Your task to perform on an android device: What's the weather? Image 0: 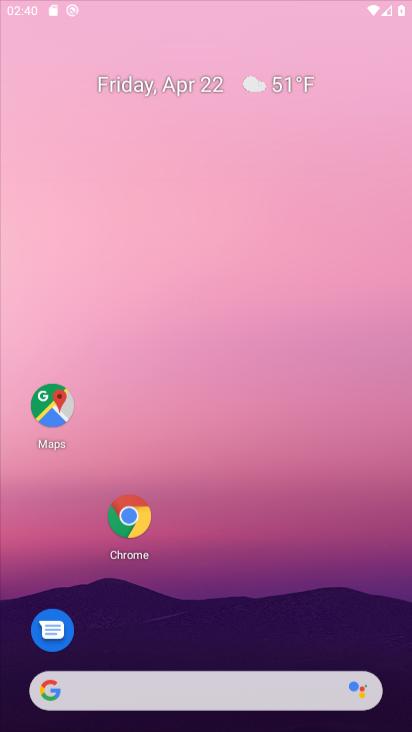
Step 0: drag from (342, 284) to (336, 184)
Your task to perform on an android device: What's the weather? Image 1: 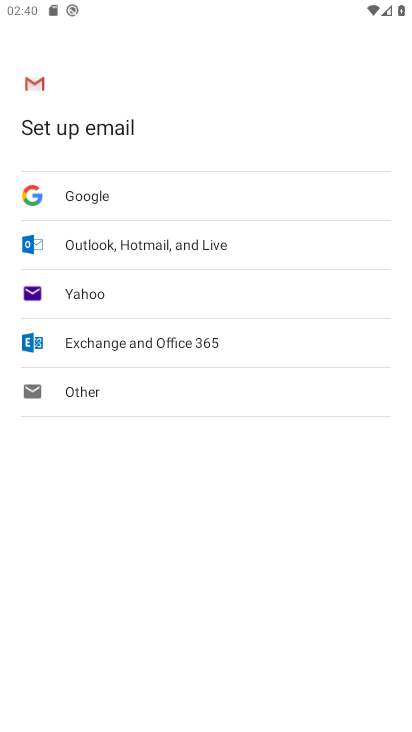
Step 1: press home button
Your task to perform on an android device: What's the weather? Image 2: 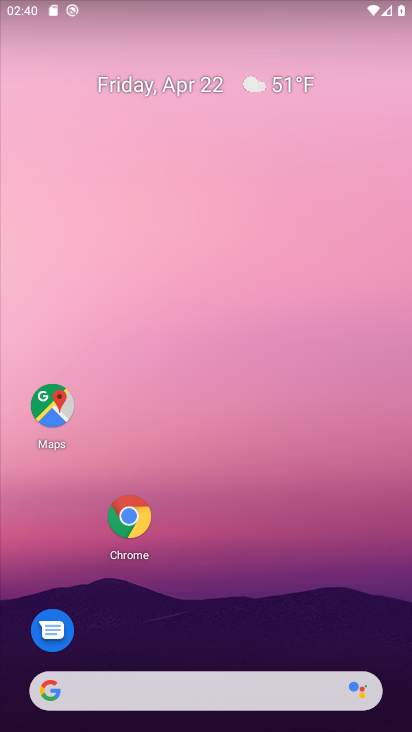
Step 2: click (342, 131)
Your task to perform on an android device: What's the weather? Image 3: 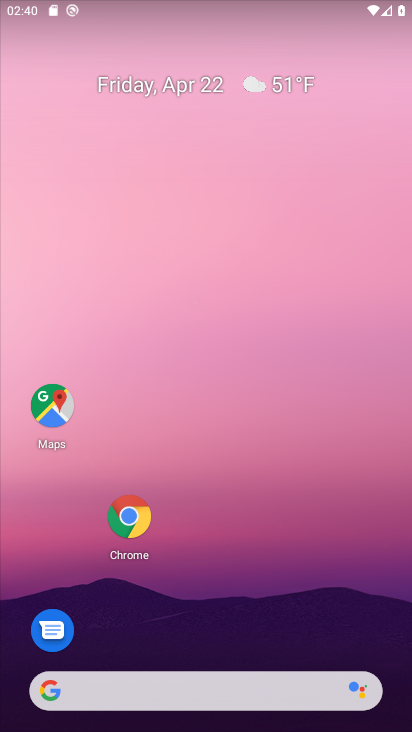
Step 3: click (277, 84)
Your task to perform on an android device: What's the weather? Image 4: 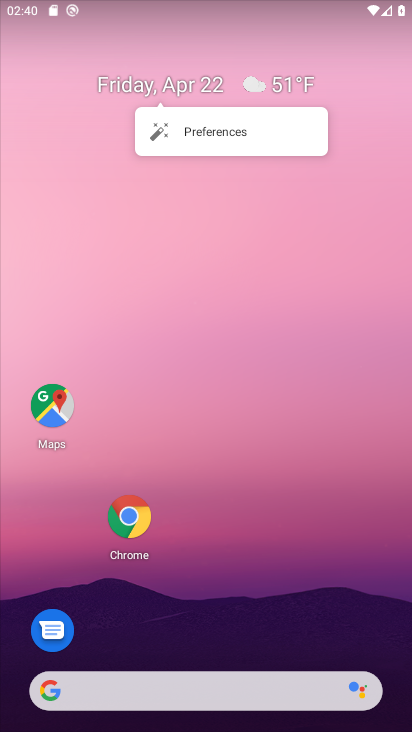
Step 4: click (276, 81)
Your task to perform on an android device: What's the weather? Image 5: 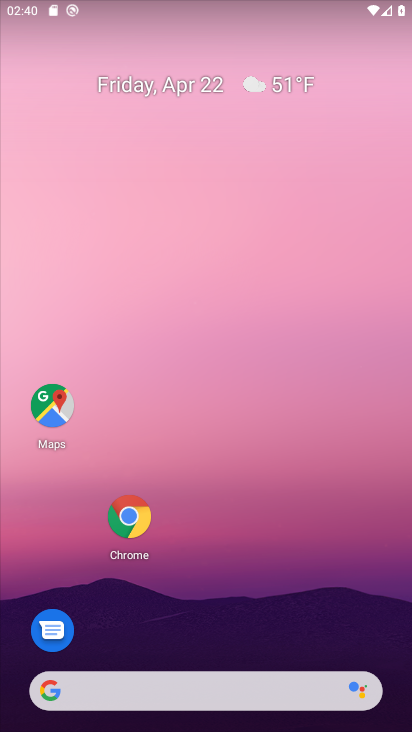
Step 5: click (284, 85)
Your task to perform on an android device: What's the weather? Image 6: 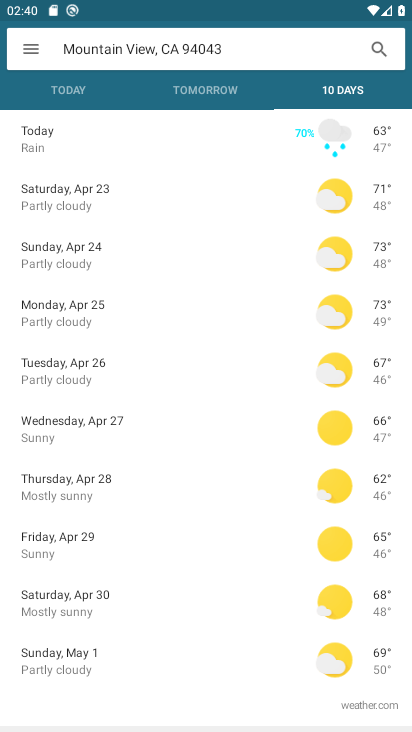
Step 6: task complete